Your task to perform on an android device: open chrome and create a bookmark for the current page Image 0: 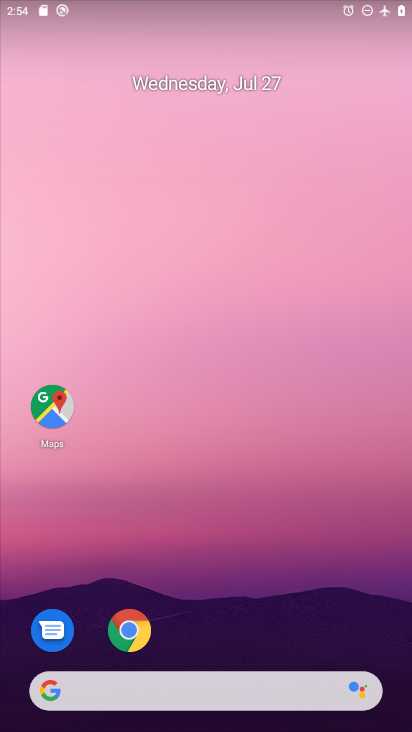
Step 0: click (129, 632)
Your task to perform on an android device: open chrome and create a bookmark for the current page Image 1: 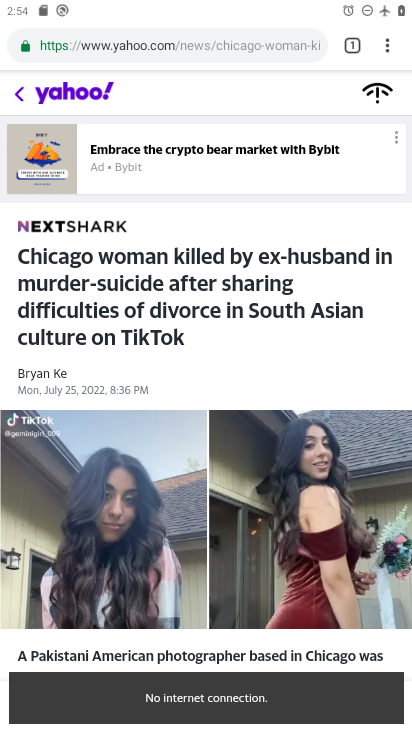
Step 1: click (389, 52)
Your task to perform on an android device: open chrome and create a bookmark for the current page Image 2: 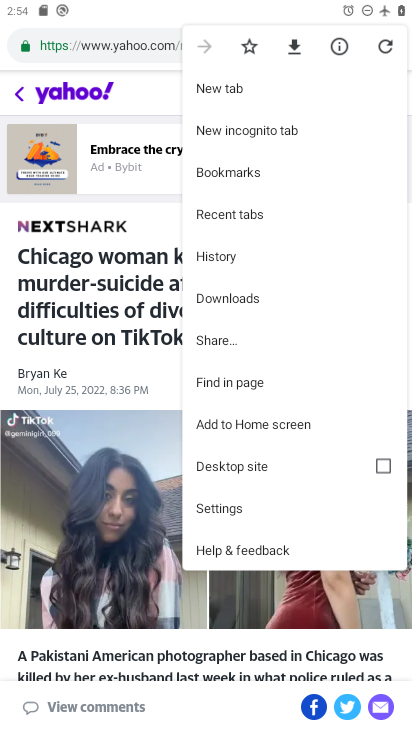
Step 2: click (249, 44)
Your task to perform on an android device: open chrome and create a bookmark for the current page Image 3: 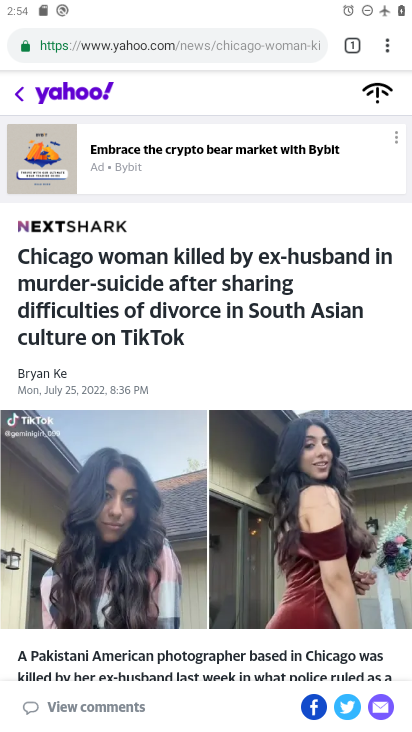
Step 3: task complete